Your task to perform on an android device: uninstall "Spotify" Image 0: 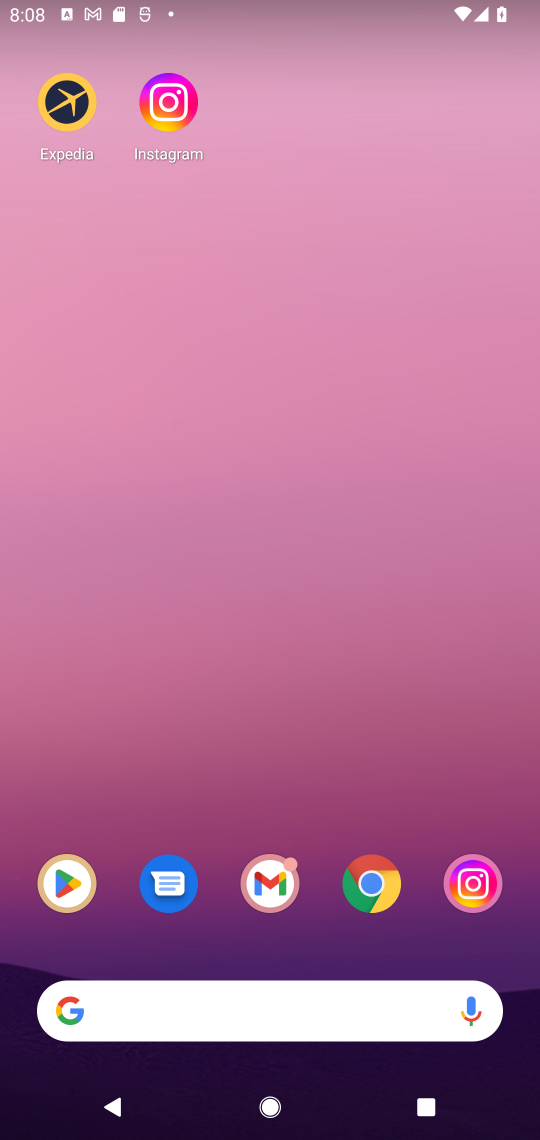
Step 0: click (64, 888)
Your task to perform on an android device: uninstall "Spotify" Image 1: 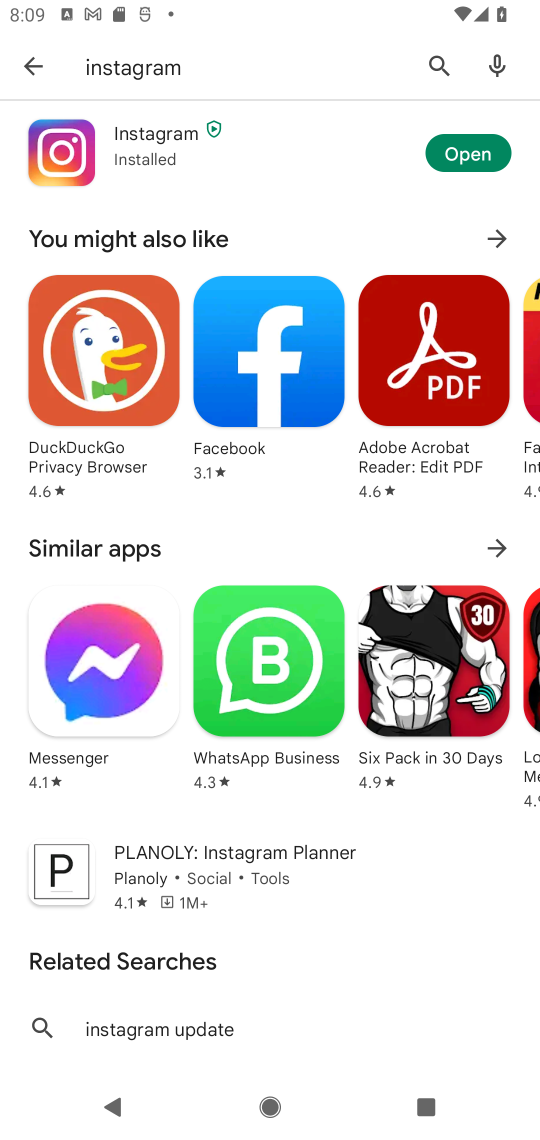
Step 1: click (429, 60)
Your task to perform on an android device: uninstall "Spotify" Image 2: 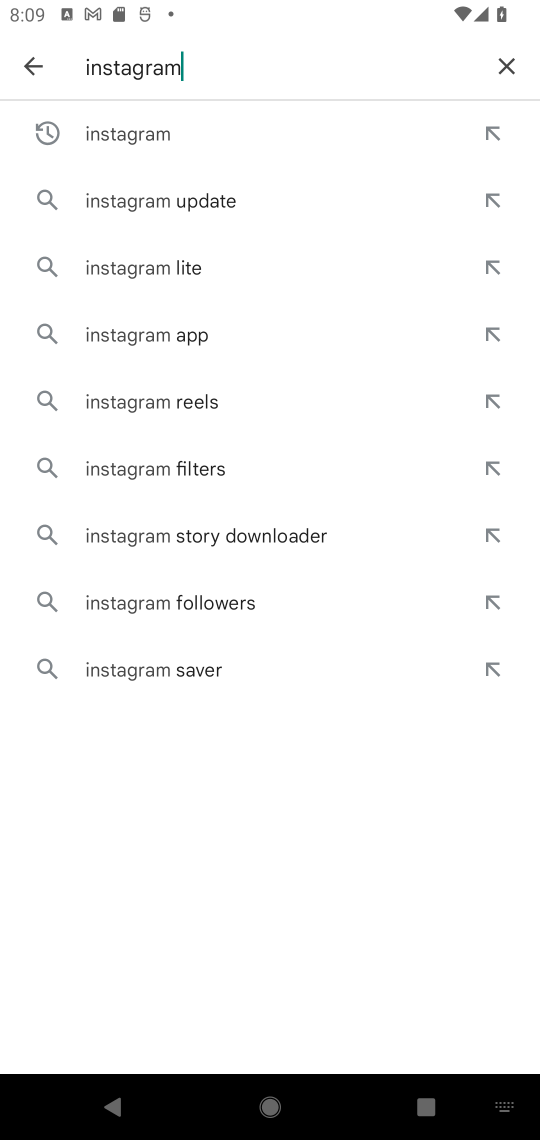
Step 2: click (501, 57)
Your task to perform on an android device: uninstall "Spotify" Image 3: 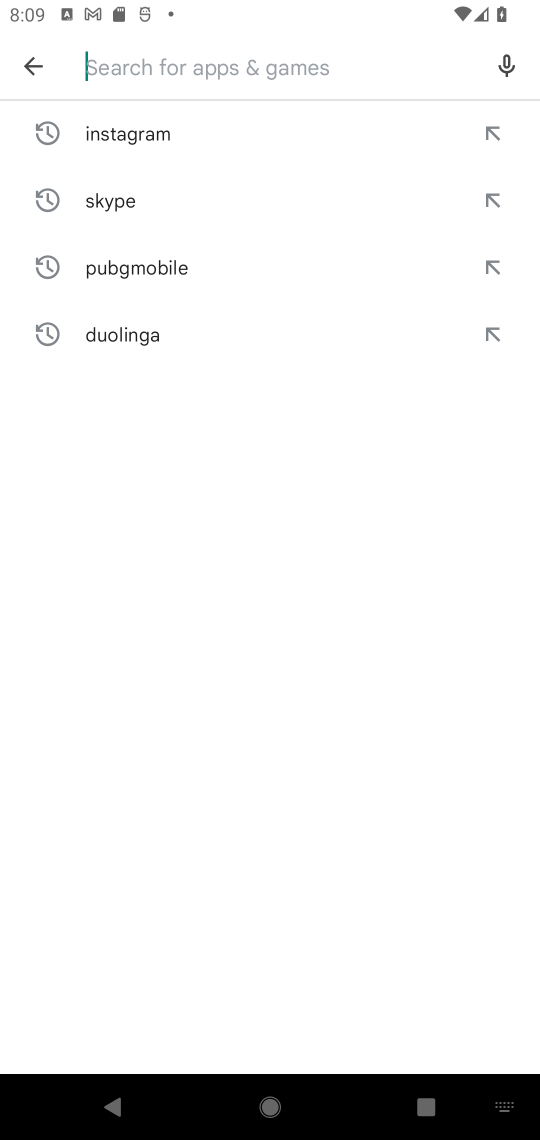
Step 3: click (200, 53)
Your task to perform on an android device: uninstall "Spotify" Image 4: 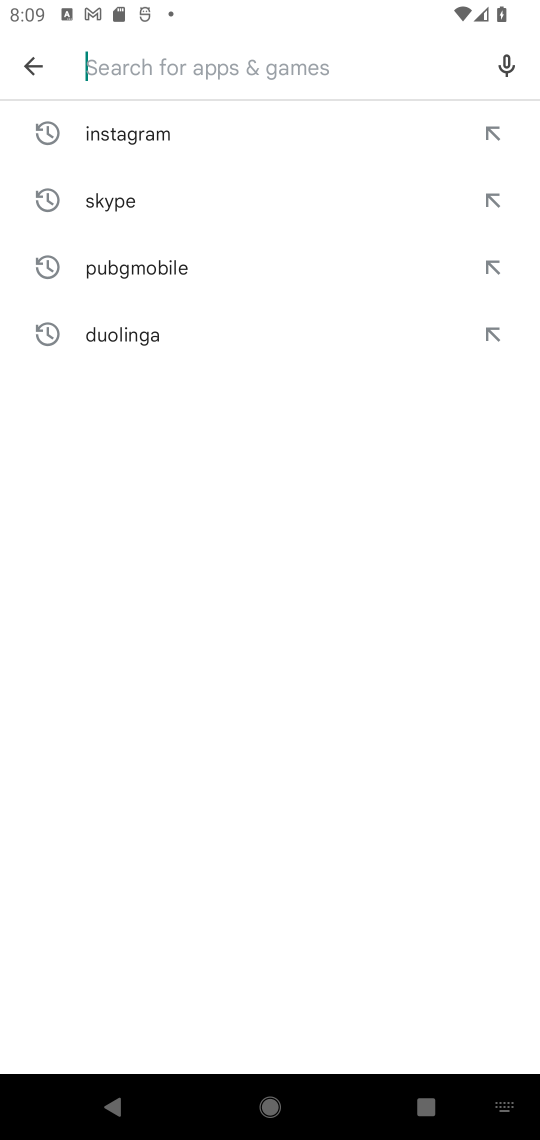
Step 4: type "spotify"
Your task to perform on an android device: uninstall "Spotify" Image 5: 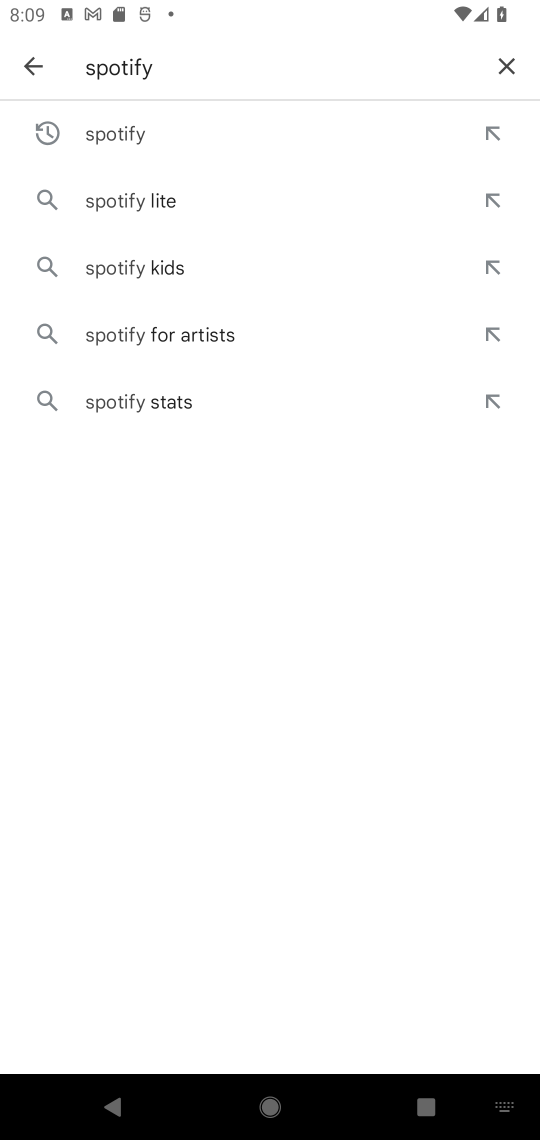
Step 5: click (101, 137)
Your task to perform on an android device: uninstall "Spotify" Image 6: 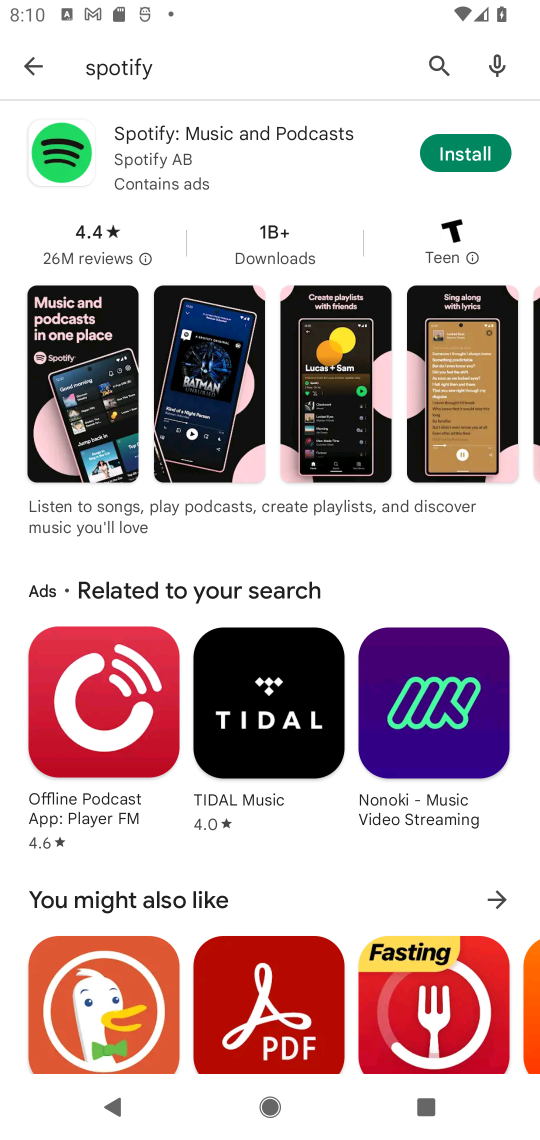
Step 6: task complete